Your task to perform on an android device: Open display settings Image 0: 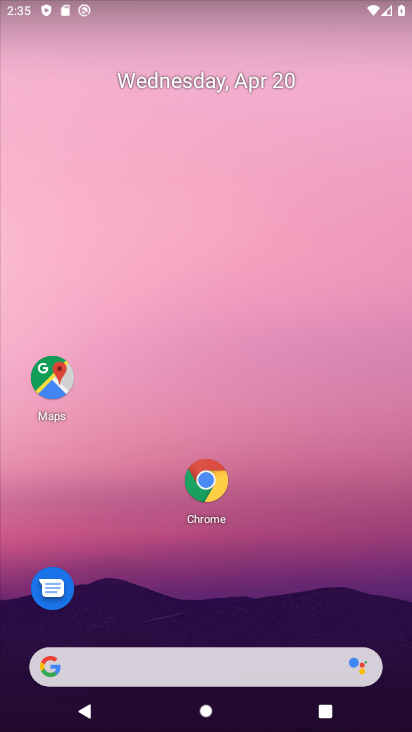
Step 0: drag from (256, 685) to (218, 221)
Your task to perform on an android device: Open display settings Image 1: 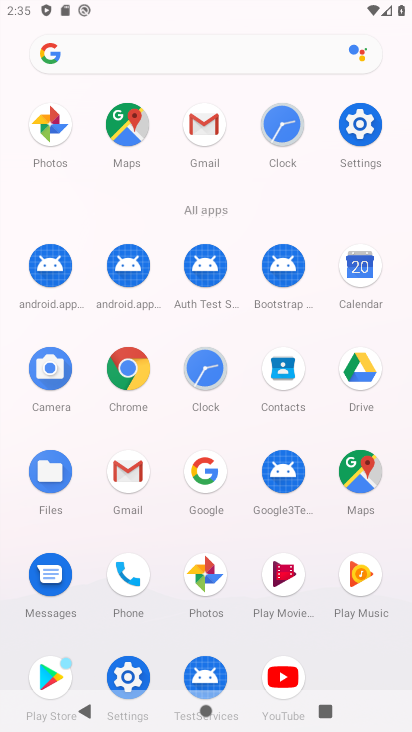
Step 1: click (369, 136)
Your task to perform on an android device: Open display settings Image 2: 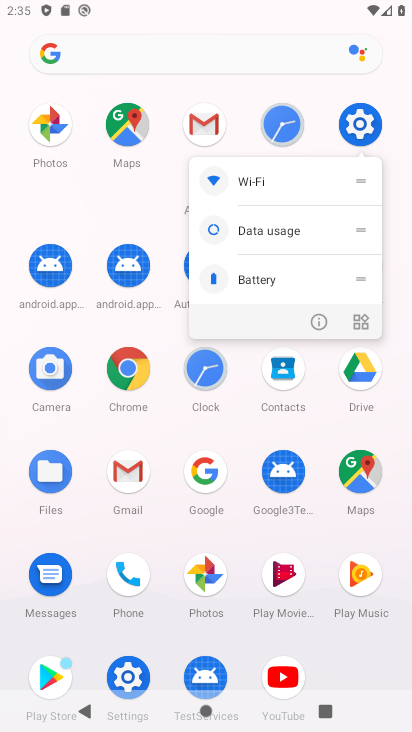
Step 2: click (370, 135)
Your task to perform on an android device: Open display settings Image 3: 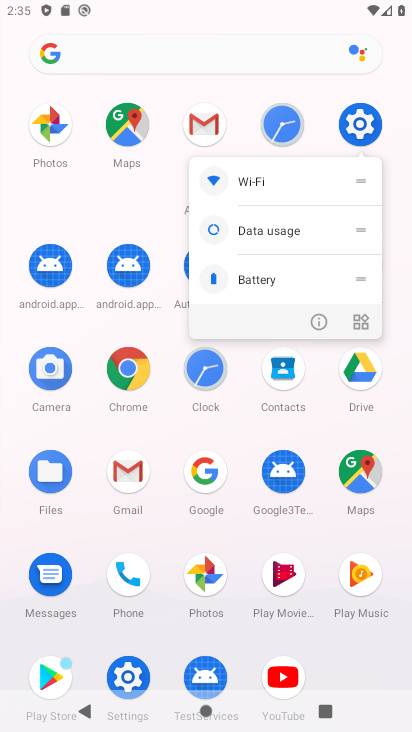
Step 3: click (370, 135)
Your task to perform on an android device: Open display settings Image 4: 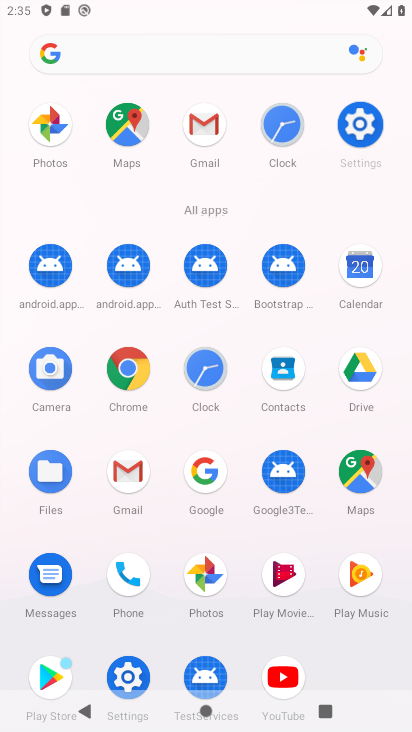
Step 4: click (370, 135)
Your task to perform on an android device: Open display settings Image 5: 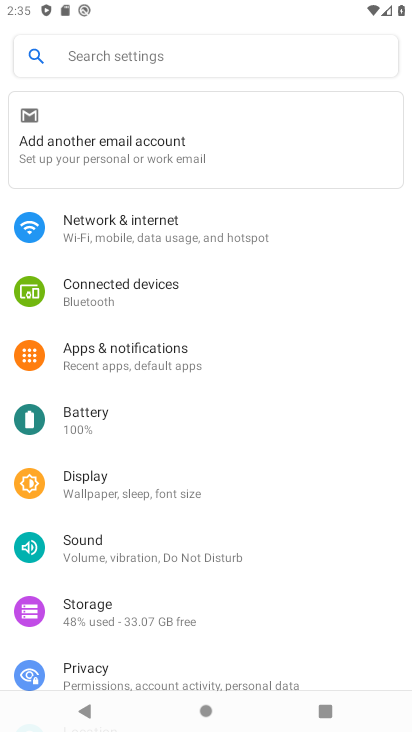
Step 5: drag from (149, 515) to (199, 311)
Your task to perform on an android device: Open display settings Image 6: 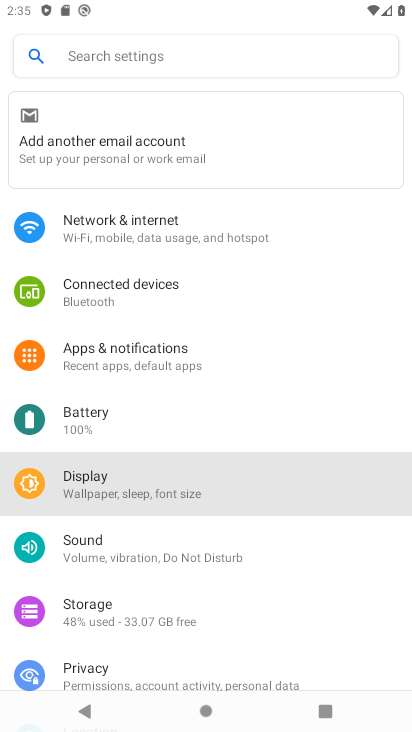
Step 6: drag from (135, 560) to (166, 467)
Your task to perform on an android device: Open display settings Image 7: 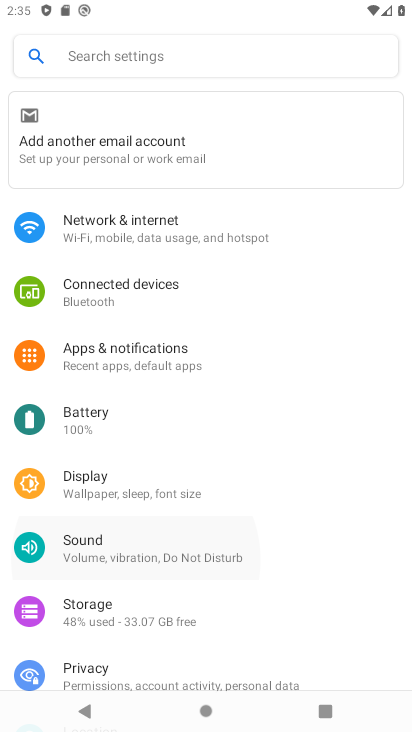
Step 7: click (167, 466)
Your task to perform on an android device: Open display settings Image 8: 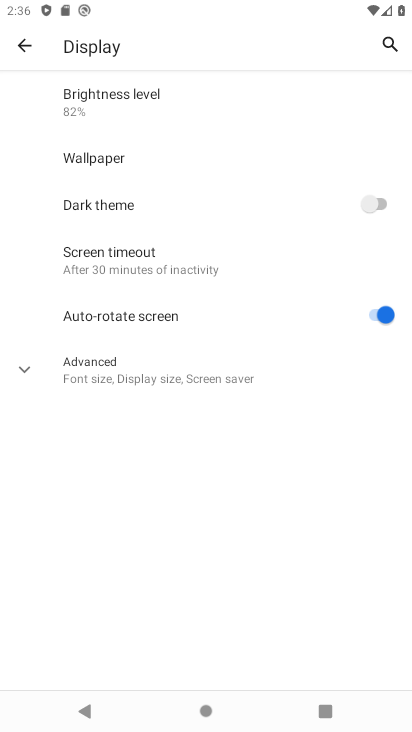
Step 8: click (18, 51)
Your task to perform on an android device: Open display settings Image 9: 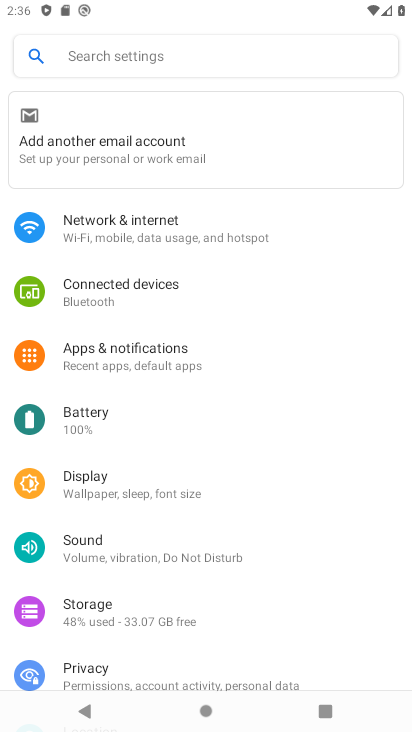
Step 9: drag from (118, 480) to (128, 564)
Your task to perform on an android device: Open display settings Image 10: 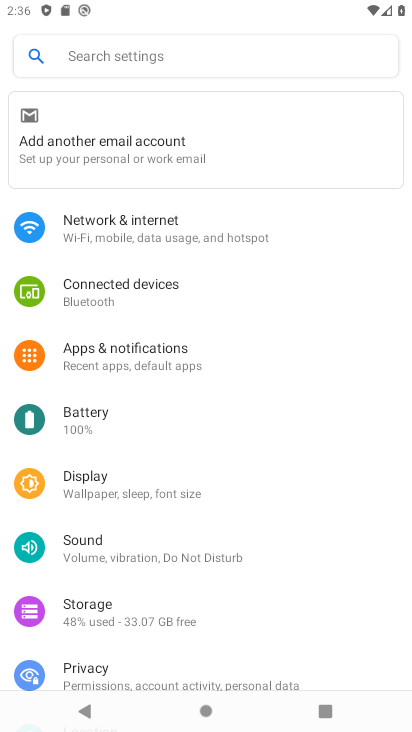
Step 10: click (99, 490)
Your task to perform on an android device: Open display settings Image 11: 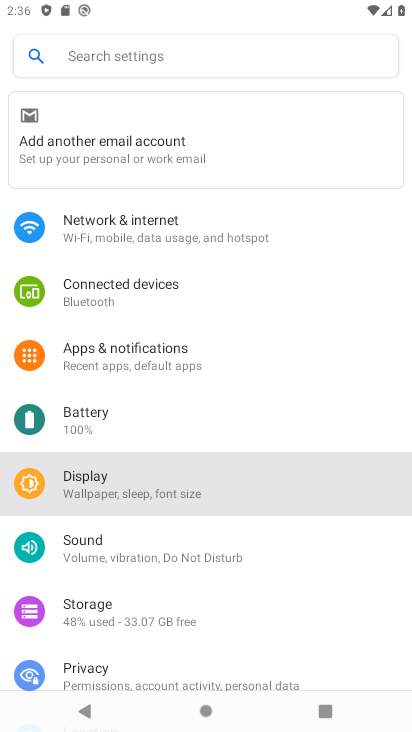
Step 11: click (99, 490)
Your task to perform on an android device: Open display settings Image 12: 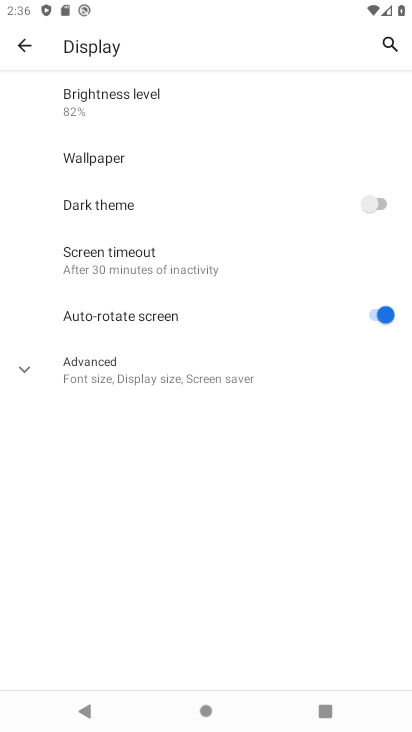
Step 12: click (79, 97)
Your task to perform on an android device: Open display settings Image 13: 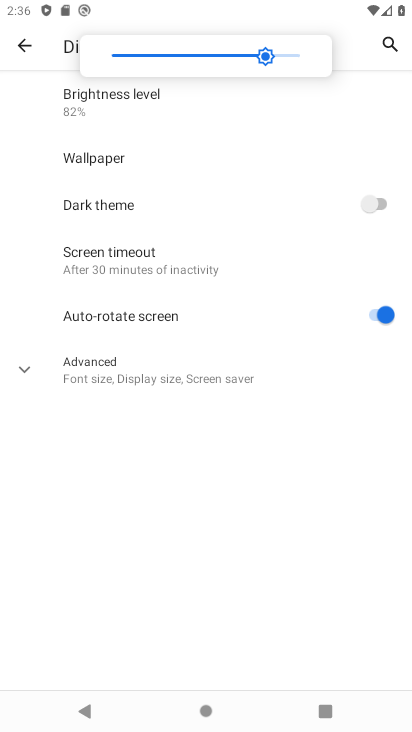
Step 13: click (23, 46)
Your task to perform on an android device: Open display settings Image 14: 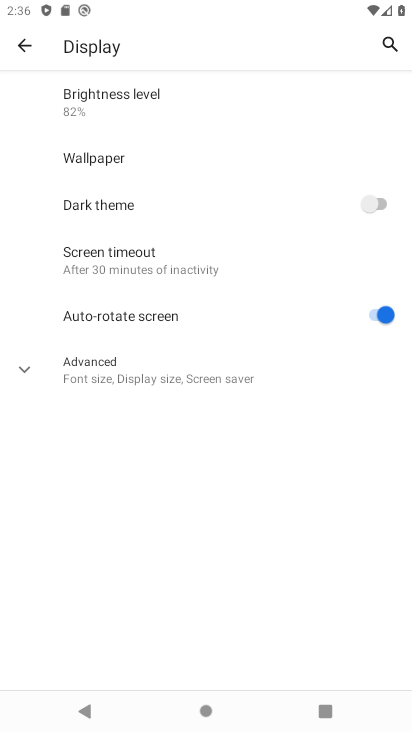
Step 14: click (15, 43)
Your task to perform on an android device: Open display settings Image 15: 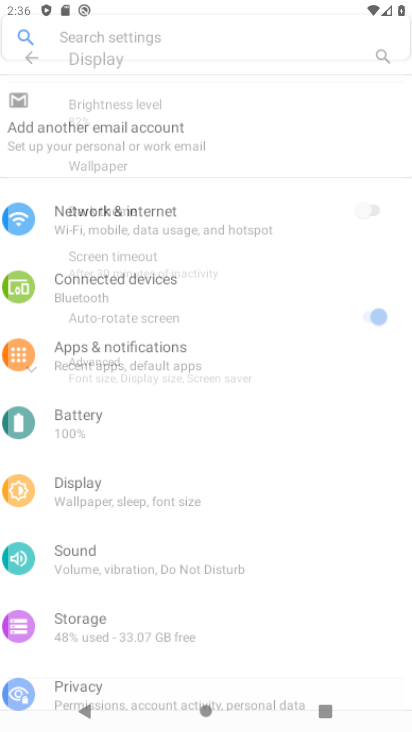
Step 15: click (29, 49)
Your task to perform on an android device: Open display settings Image 16: 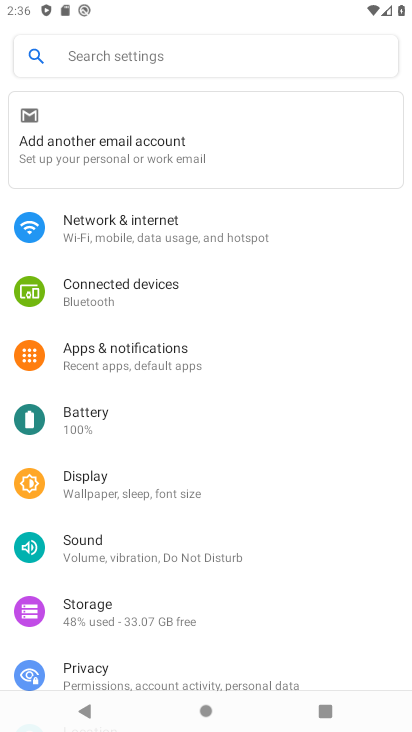
Step 16: click (129, 486)
Your task to perform on an android device: Open display settings Image 17: 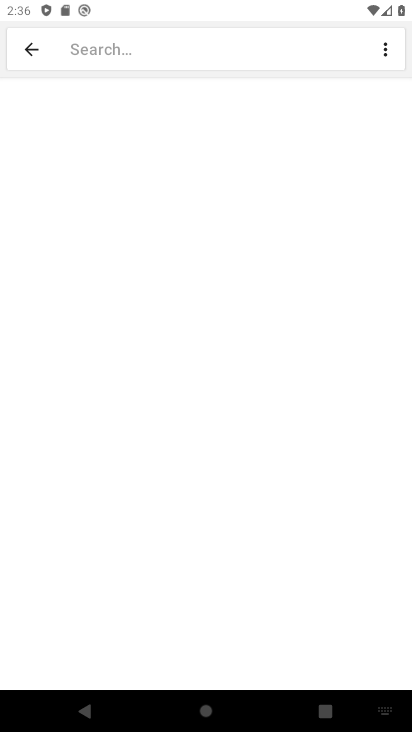
Step 17: task complete